Your task to perform on an android device: Go to sound settings Image 0: 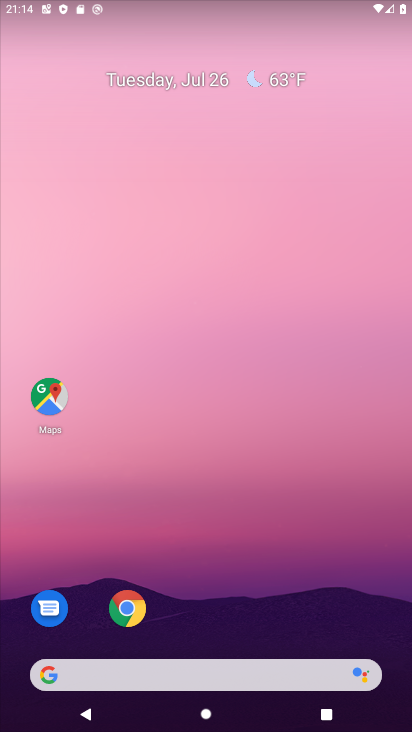
Step 0: drag from (132, 214) to (173, 1)
Your task to perform on an android device: Go to sound settings Image 1: 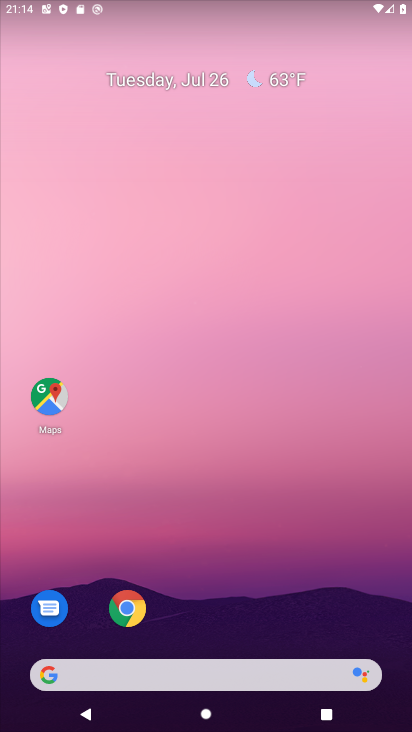
Step 1: drag from (74, 630) to (179, 104)
Your task to perform on an android device: Go to sound settings Image 2: 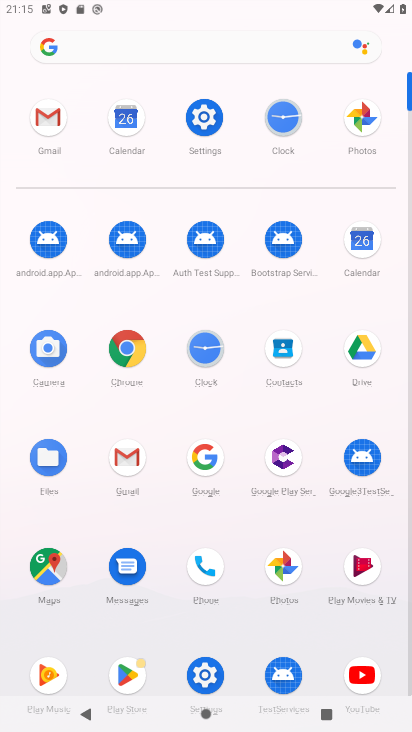
Step 2: click (195, 676)
Your task to perform on an android device: Go to sound settings Image 3: 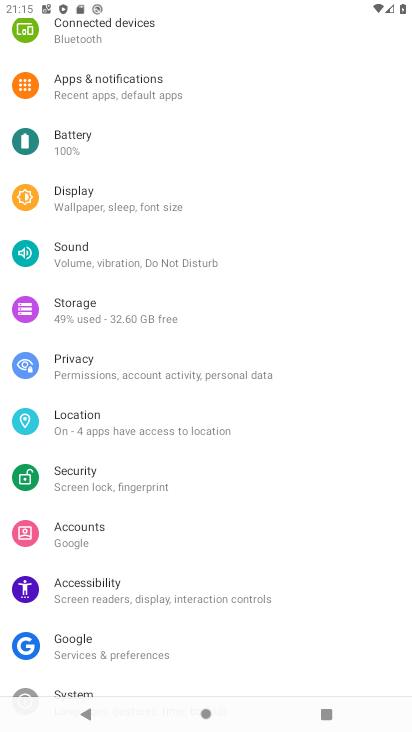
Step 3: click (80, 246)
Your task to perform on an android device: Go to sound settings Image 4: 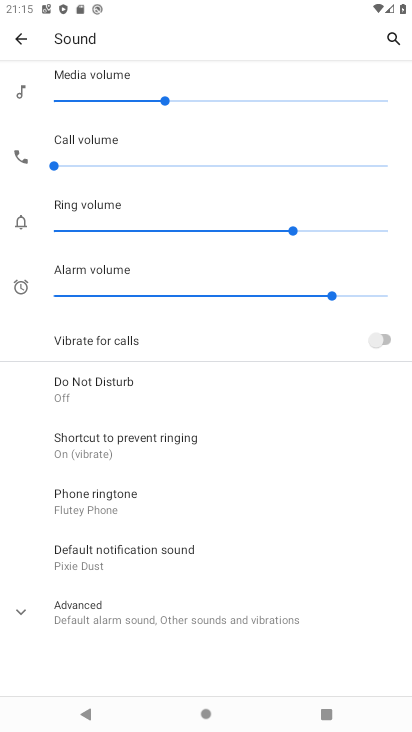
Step 4: task complete